Your task to perform on an android device: Go to Reddit.com Image 0: 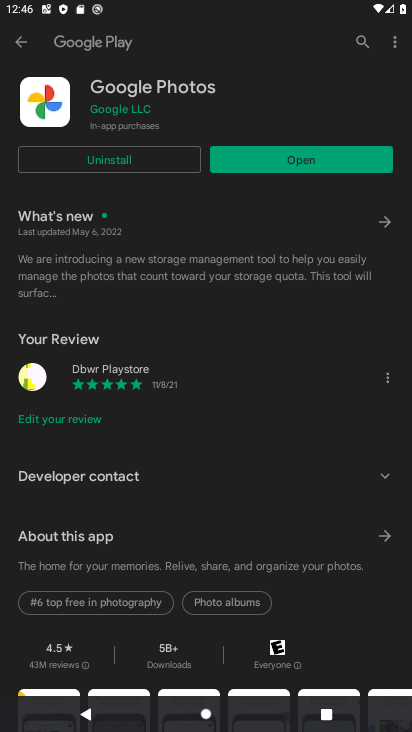
Step 0: press home button
Your task to perform on an android device: Go to Reddit.com Image 1: 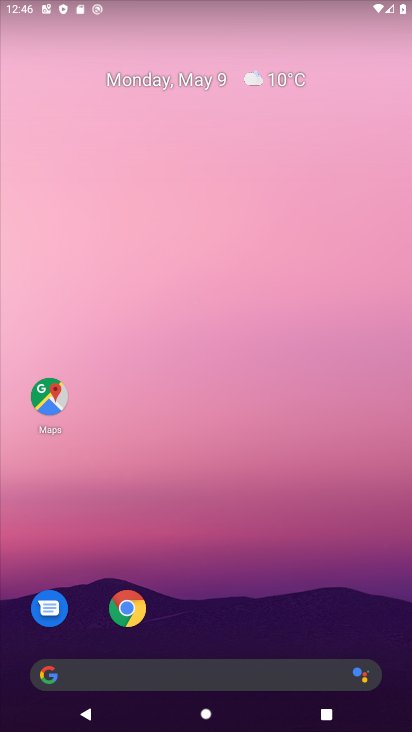
Step 1: click (184, 681)
Your task to perform on an android device: Go to Reddit.com Image 2: 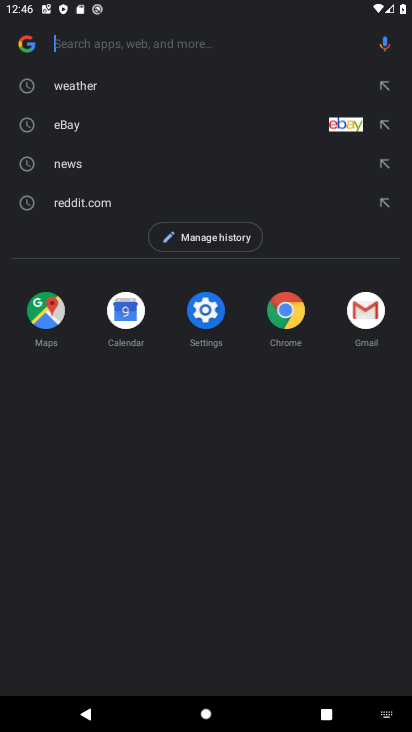
Step 2: type "reddit.com"
Your task to perform on an android device: Go to Reddit.com Image 3: 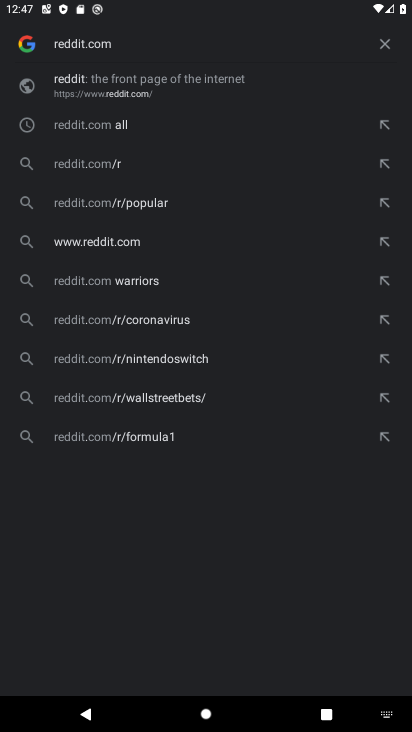
Step 3: click (155, 74)
Your task to perform on an android device: Go to Reddit.com Image 4: 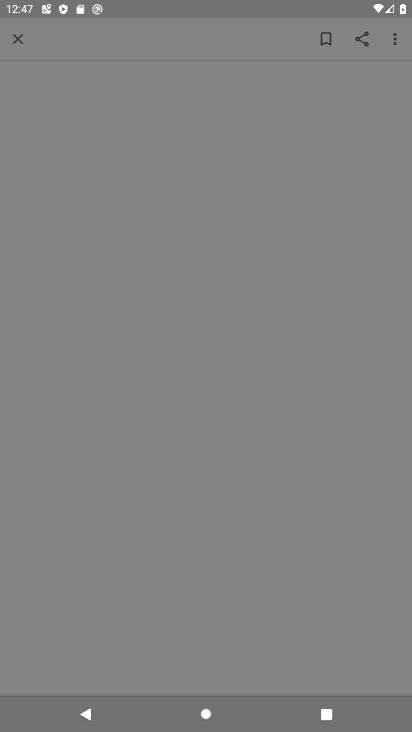
Step 4: task complete